Your task to perform on an android device: open a new tab in the chrome app Image 0: 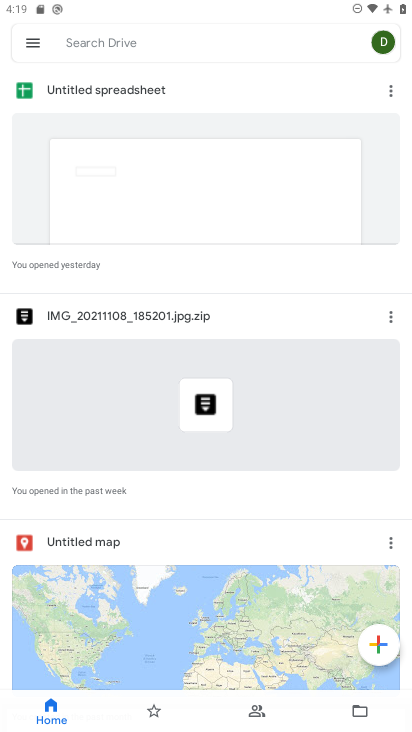
Step 0: press back button
Your task to perform on an android device: open a new tab in the chrome app Image 1: 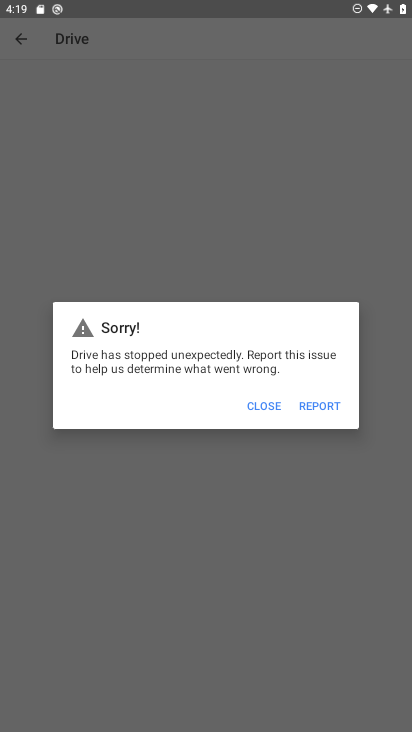
Step 1: press home button
Your task to perform on an android device: open a new tab in the chrome app Image 2: 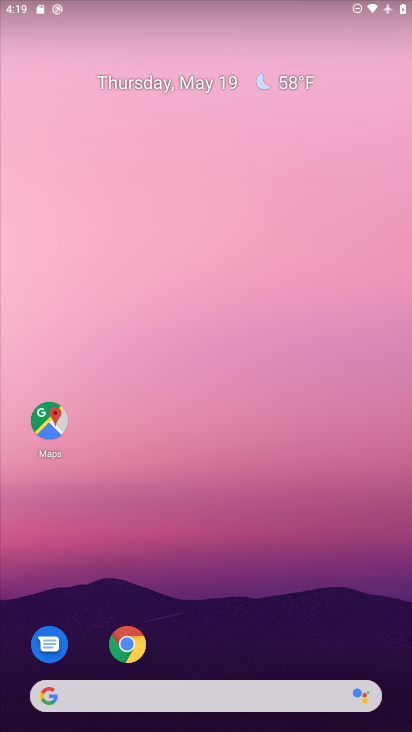
Step 2: drag from (300, 576) to (237, 35)
Your task to perform on an android device: open a new tab in the chrome app Image 3: 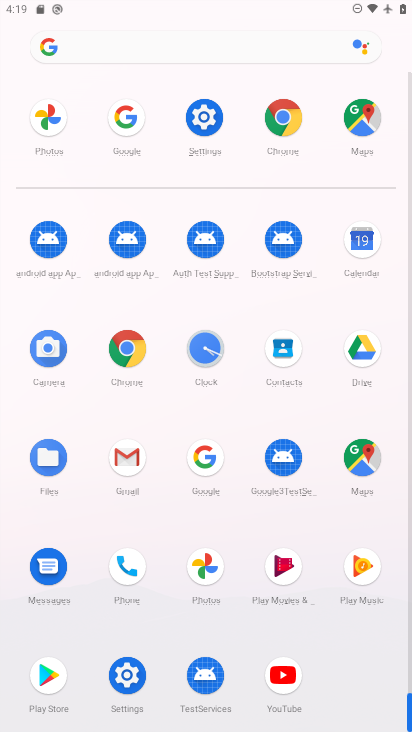
Step 3: click (126, 345)
Your task to perform on an android device: open a new tab in the chrome app Image 4: 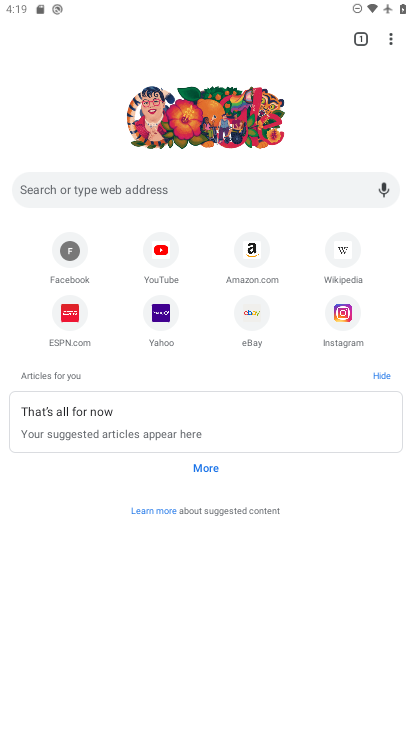
Step 4: task complete